Your task to perform on an android device: visit the assistant section in the google photos Image 0: 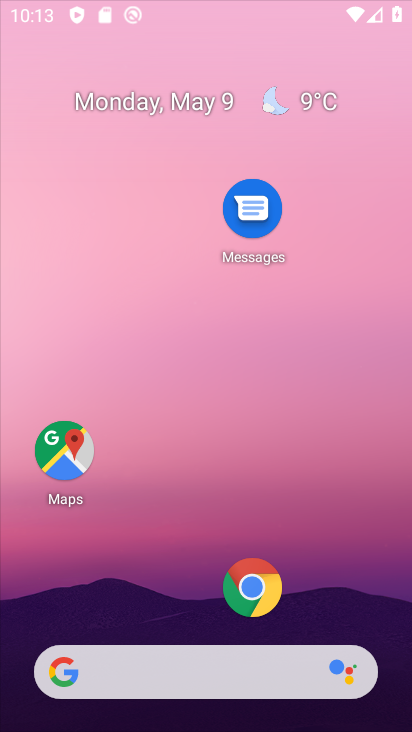
Step 0: click (230, 320)
Your task to perform on an android device: visit the assistant section in the google photos Image 1: 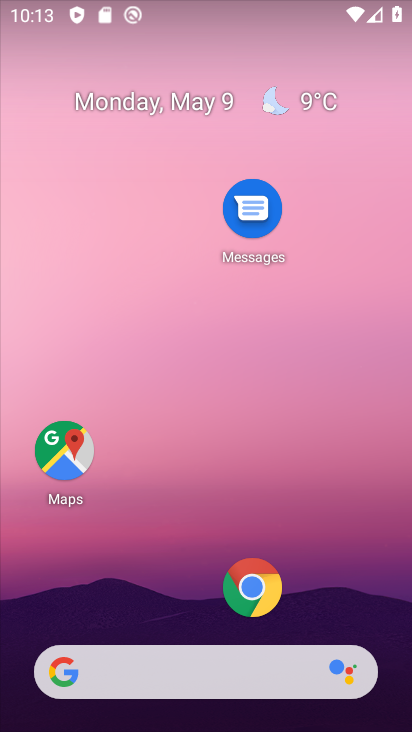
Step 1: drag from (165, 629) to (206, 228)
Your task to perform on an android device: visit the assistant section in the google photos Image 2: 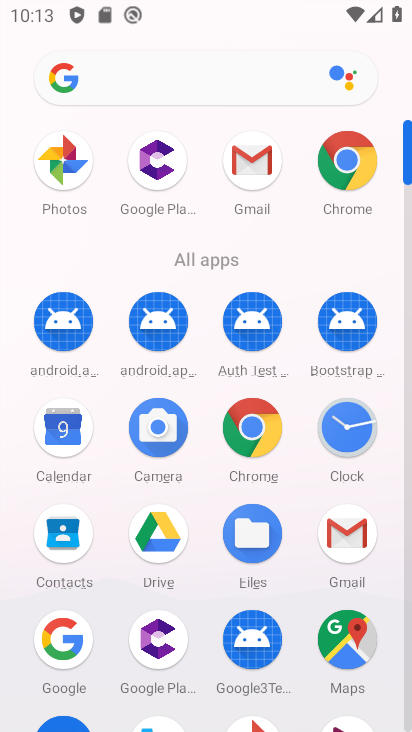
Step 2: drag from (209, 702) to (218, 348)
Your task to perform on an android device: visit the assistant section in the google photos Image 3: 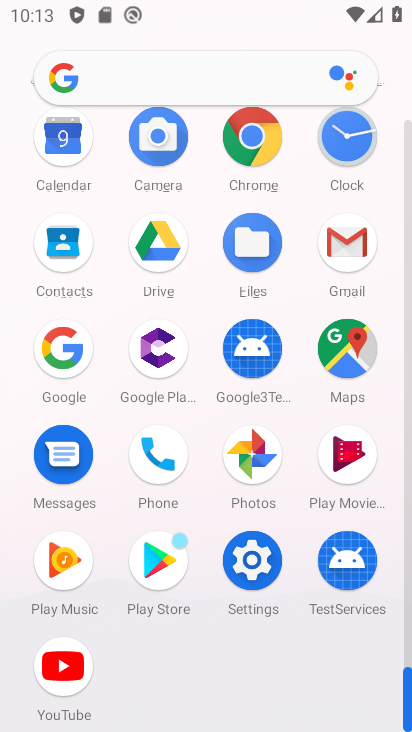
Step 3: click (253, 466)
Your task to perform on an android device: visit the assistant section in the google photos Image 4: 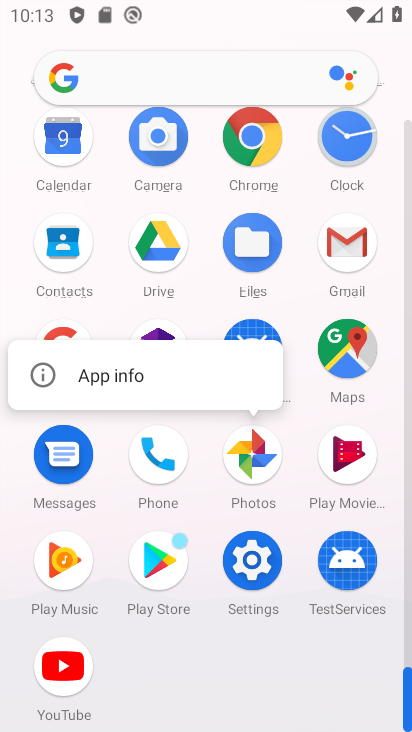
Step 4: click (131, 370)
Your task to perform on an android device: visit the assistant section in the google photos Image 5: 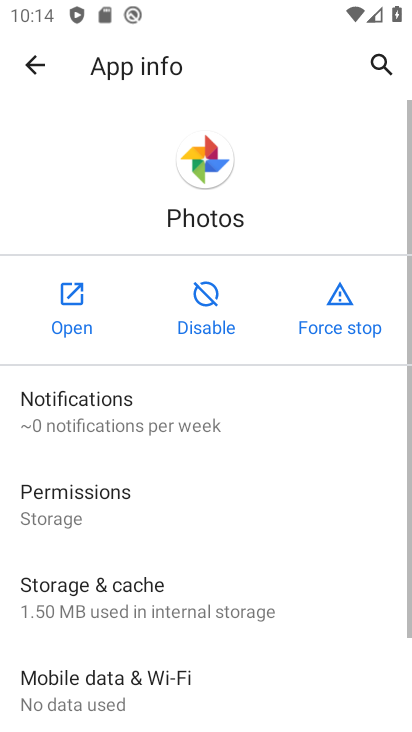
Step 5: click (68, 296)
Your task to perform on an android device: visit the assistant section in the google photos Image 6: 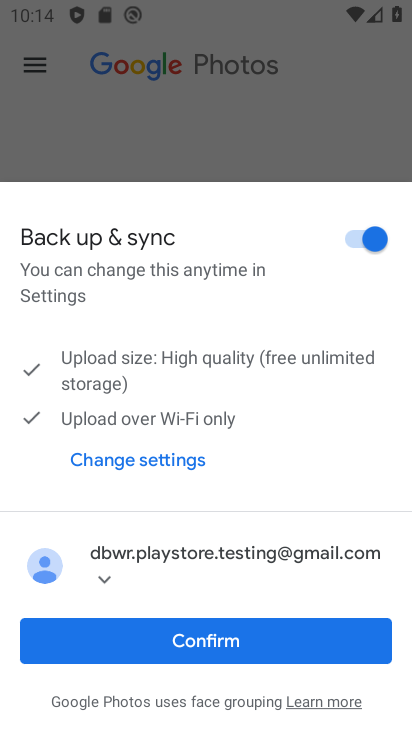
Step 6: click (165, 625)
Your task to perform on an android device: visit the assistant section in the google photos Image 7: 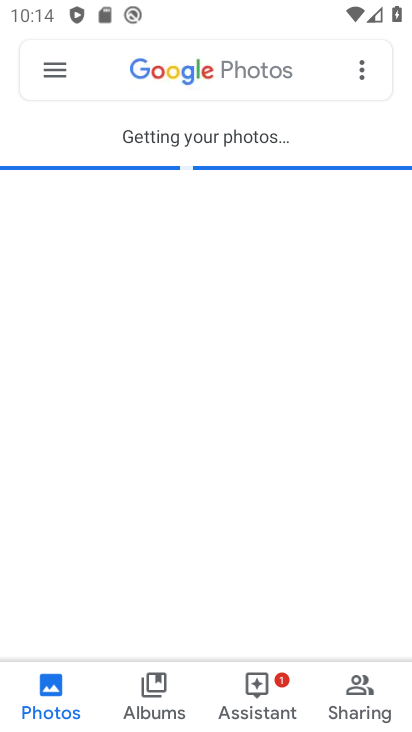
Step 7: click (50, 69)
Your task to perform on an android device: visit the assistant section in the google photos Image 8: 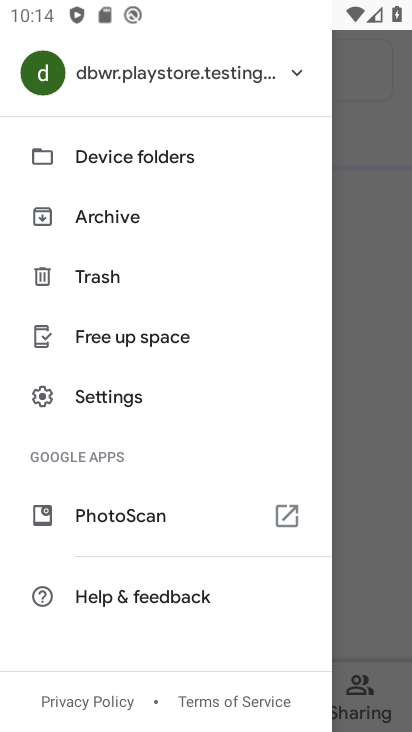
Step 8: click (397, 491)
Your task to perform on an android device: visit the assistant section in the google photos Image 9: 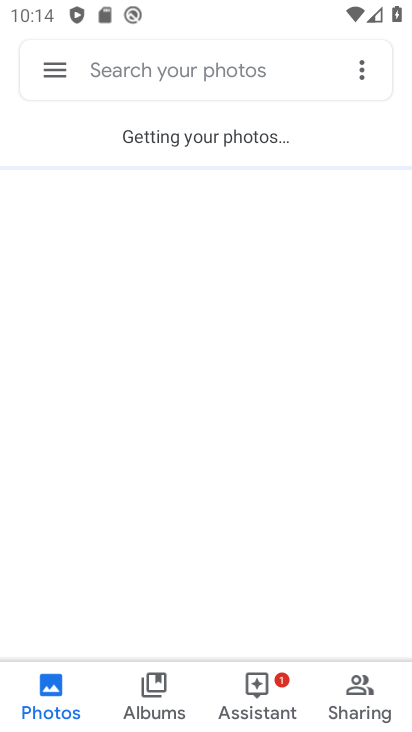
Step 9: click (264, 699)
Your task to perform on an android device: visit the assistant section in the google photos Image 10: 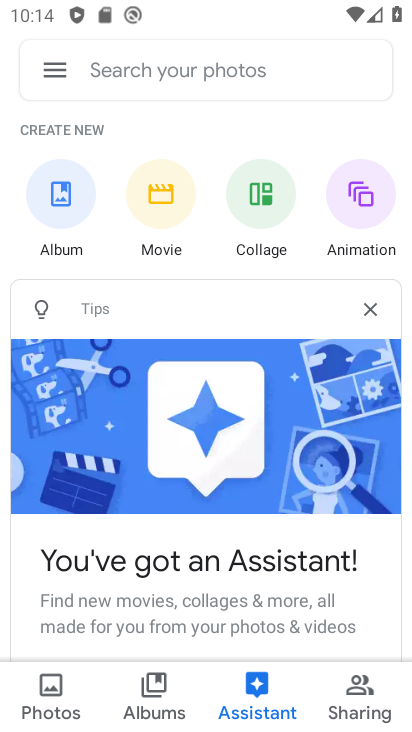
Step 10: task complete